Your task to perform on an android device: Play the last video I watched on Youtube Image 0: 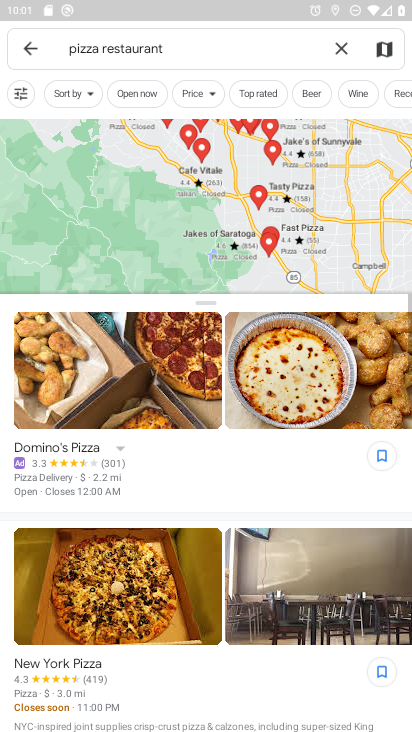
Step 0: press home button
Your task to perform on an android device: Play the last video I watched on Youtube Image 1: 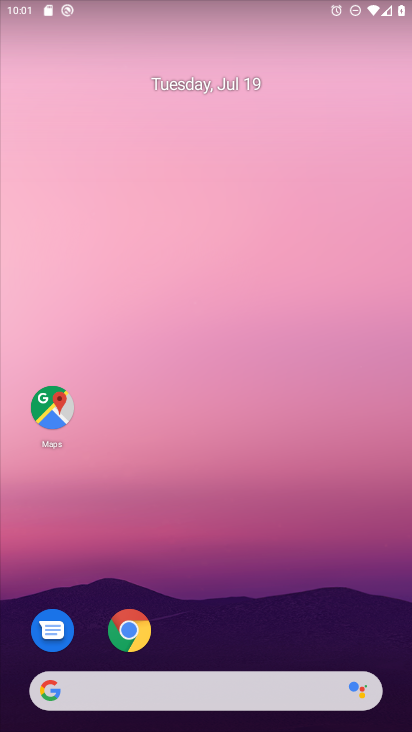
Step 1: drag from (151, 639) to (235, 189)
Your task to perform on an android device: Play the last video I watched on Youtube Image 2: 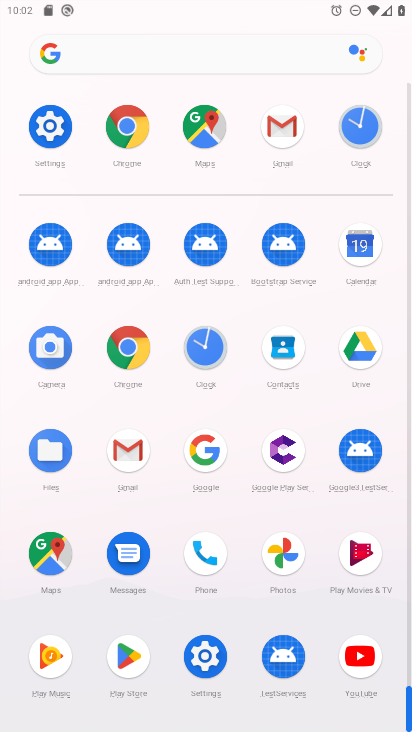
Step 2: click (372, 656)
Your task to perform on an android device: Play the last video I watched on Youtube Image 3: 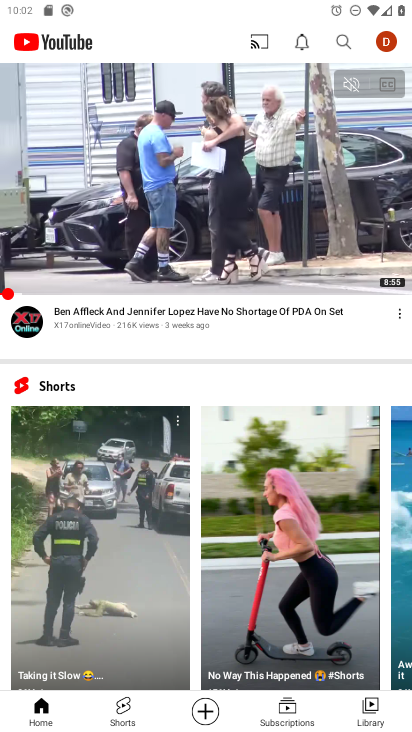
Step 3: click (381, 713)
Your task to perform on an android device: Play the last video I watched on Youtube Image 4: 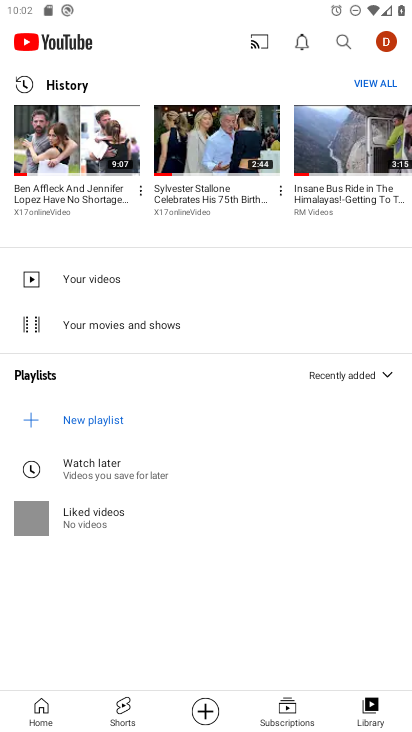
Step 4: click (91, 157)
Your task to perform on an android device: Play the last video I watched on Youtube Image 5: 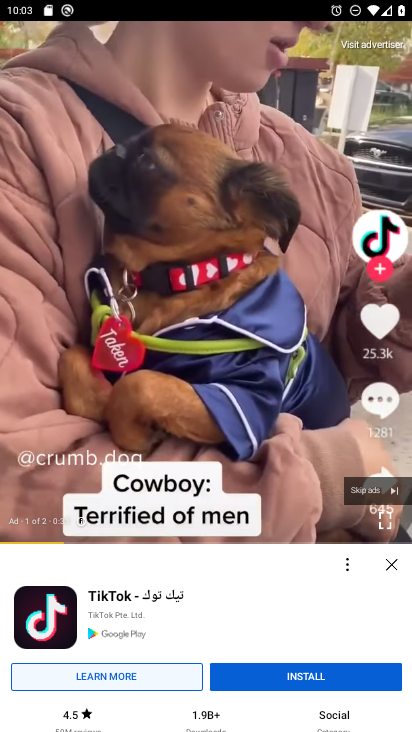
Step 5: task complete